Your task to perform on an android device: Open Yahoo.com Image 0: 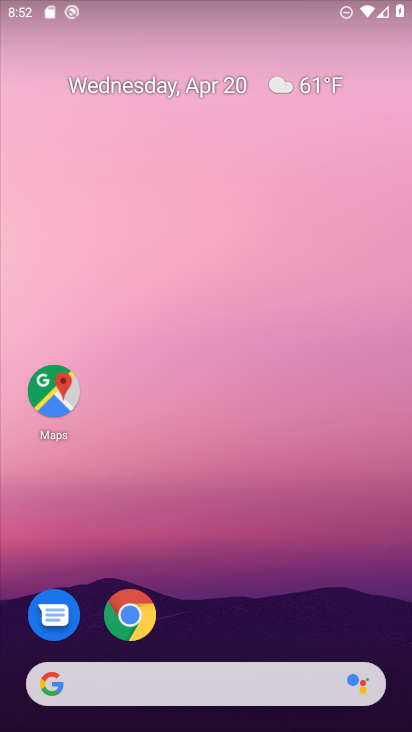
Step 0: drag from (249, 548) to (284, 214)
Your task to perform on an android device: Open Yahoo.com Image 1: 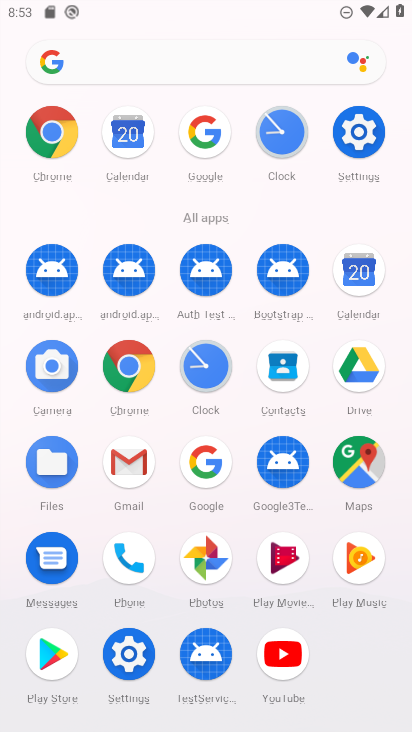
Step 1: click (51, 123)
Your task to perform on an android device: Open Yahoo.com Image 2: 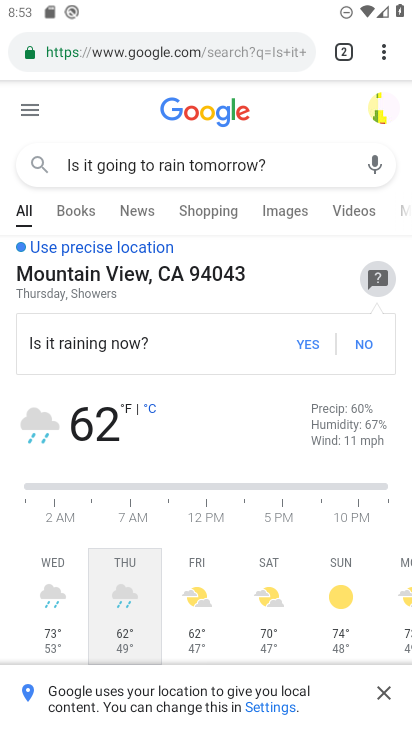
Step 2: click (380, 47)
Your task to perform on an android device: Open Yahoo.com Image 3: 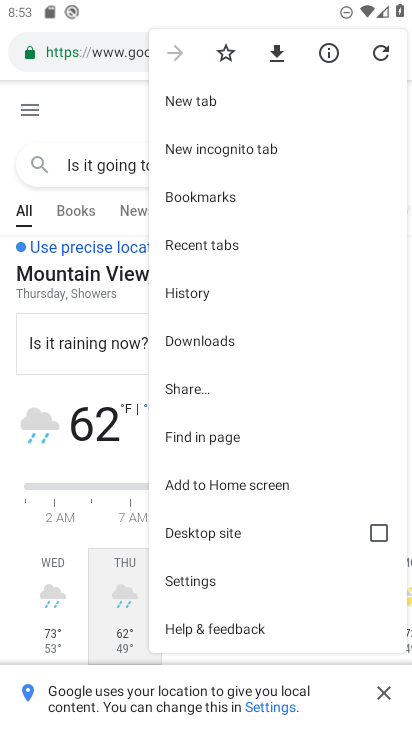
Step 3: click (220, 102)
Your task to perform on an android device: Open Yahoo.com Image 4: 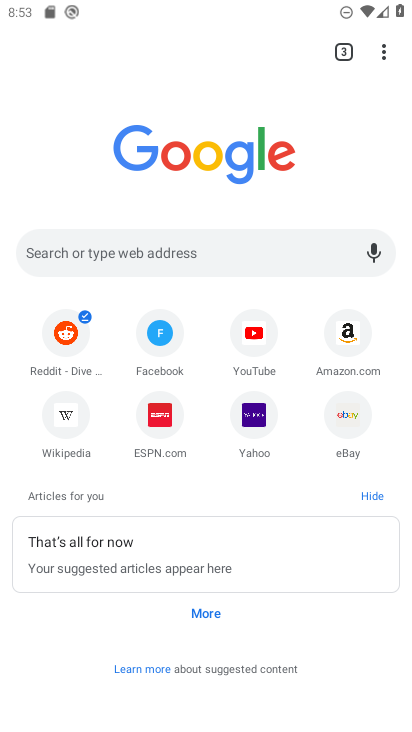
Step 4: click (242, 434)
Your task to perform on an android device: Open Yahoo.com Image 5: 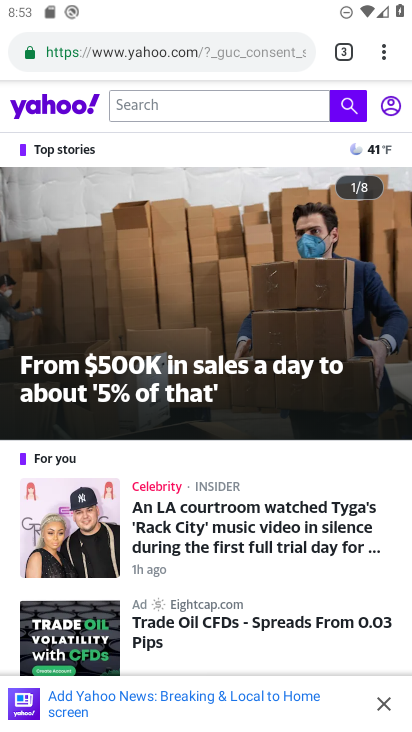
Step 5: task complete